Your task to perform on an android device: toggle location history Image 0: 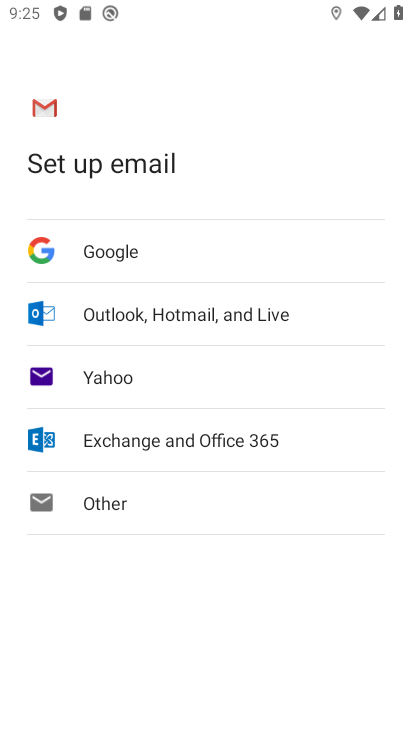
Step 0: press home button
Your task to perform on an android device: toggle location history Image 1: 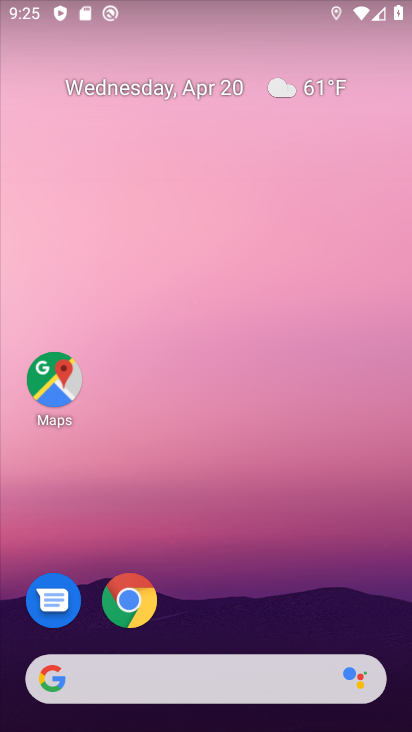
Step 1: click (45, 389)
Your task to perform on an android device: toggle location history Image 2: 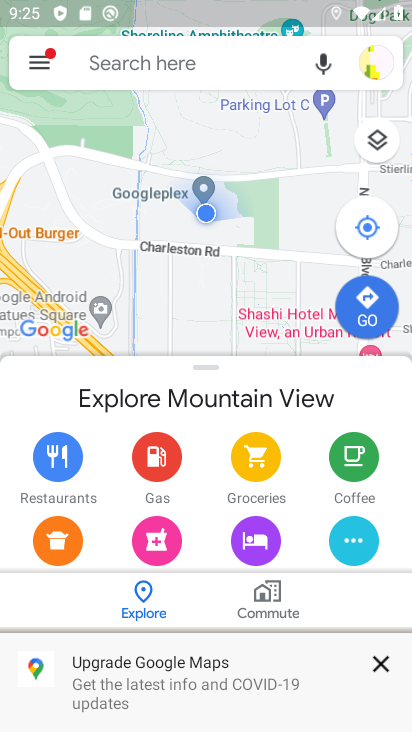
Step 2: click (44, 61)
Your task to perform on an android device: toggle location history Image 3: 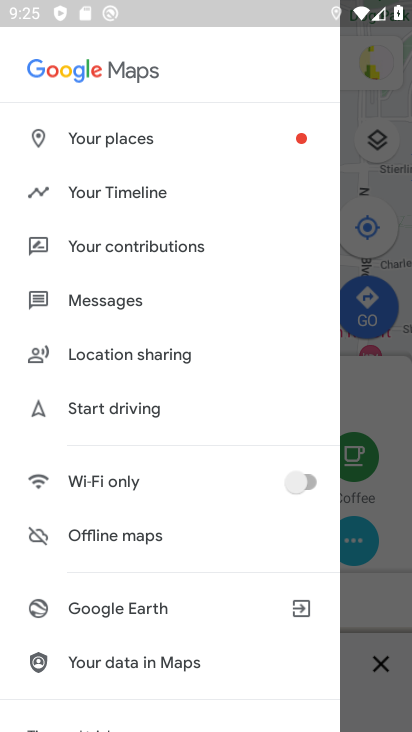
Step 3: click (120, 197)
Your task to perform on an android device: toggle location history Image 4: 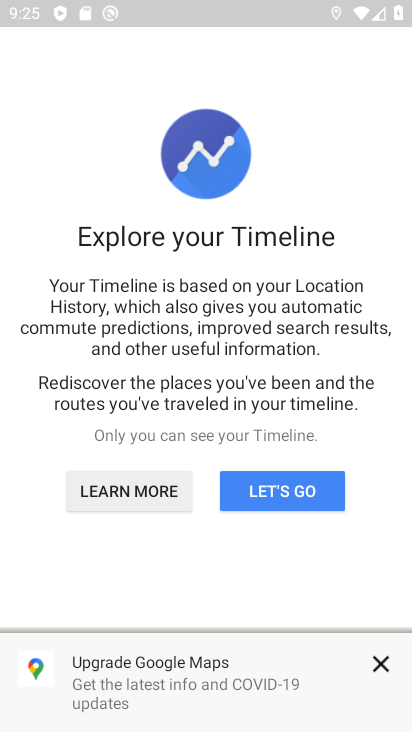
Step 4: click (291, 497)
Your task to perform on an android device: toggle location history Image 5: 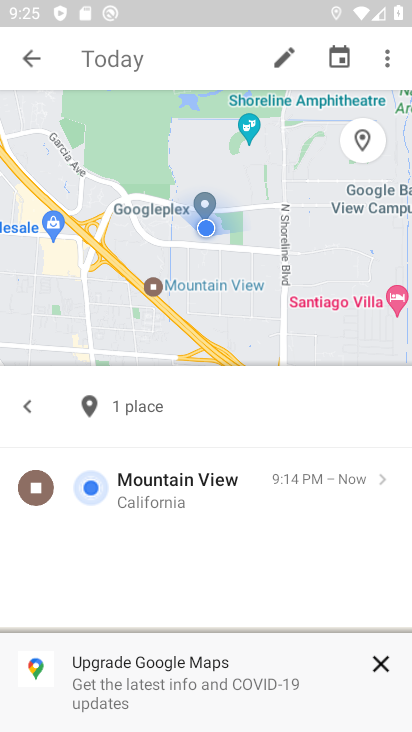
Step 5: click (390, 58)
Your task to perform on an android device: toggle location history Image 6: 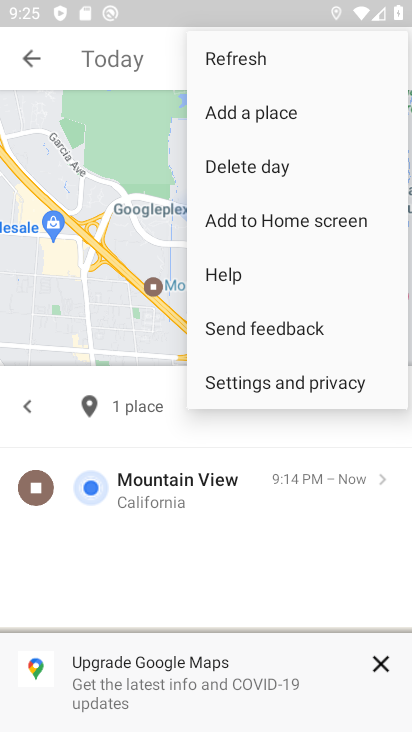
Step 6: click (273, 385)
Your task to perform on an android device: toggle location history Image 7: 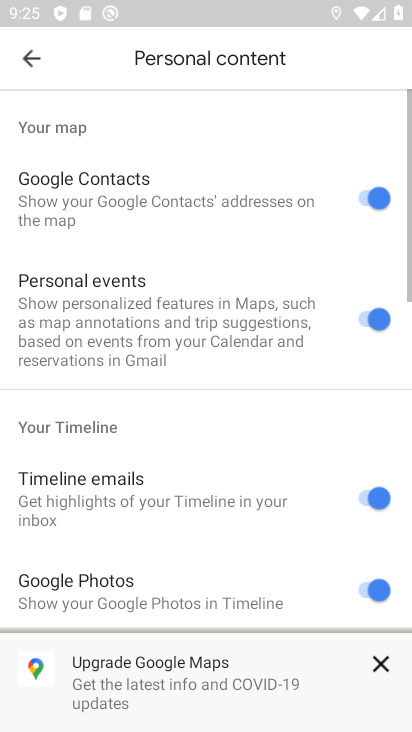
Step 7: drag from (208, 519) to (196, 153)
Your task to perform on an android device: toggle location history Image 8: 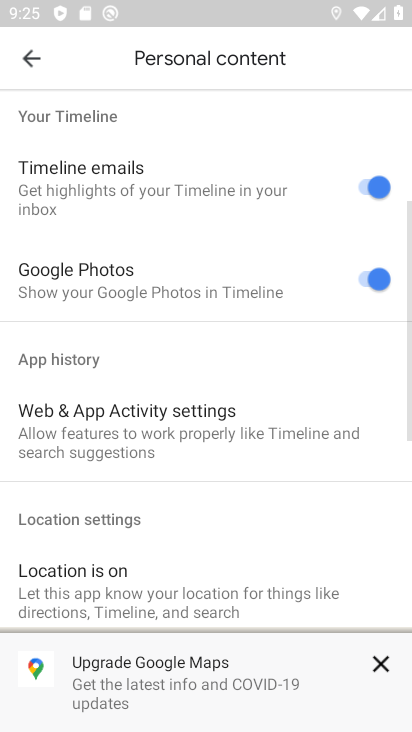
Step 8: drag from (198, 469) to (176, 45)
Your task to perform on an android device: toggle location history Image 9: 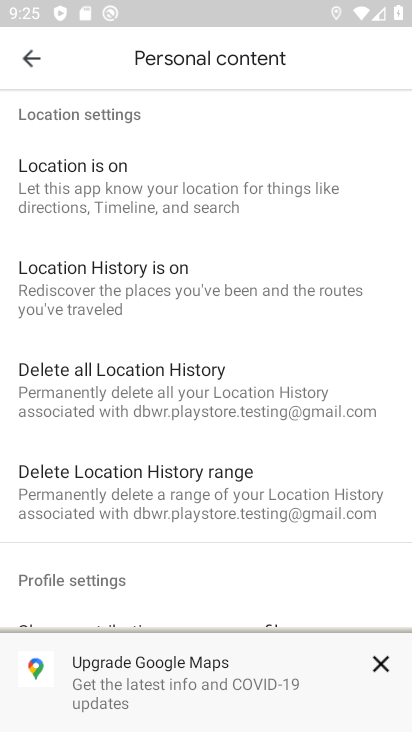
Step 9: drag from (189, 467) to (136, 62)
Your task to perform on an android device: toggle location history Image 10: 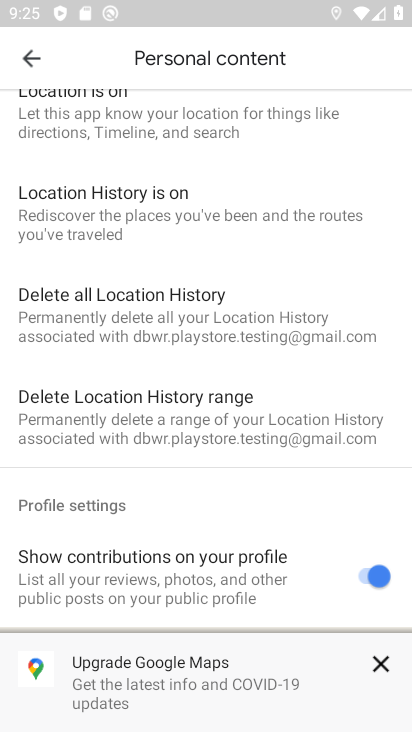
Step 10: click (94, 220)
Your task to perform on an android device: toggle location history Image 11: 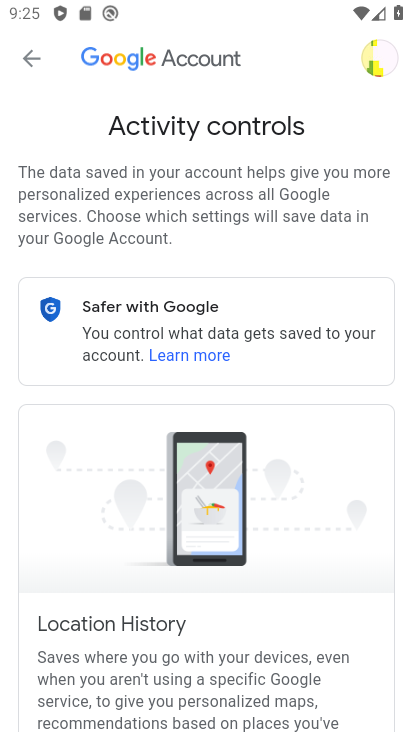
Step 11: drag from (287, 467) to (246, 129)
Your task to perform on an android device: toggle location history Image 12: 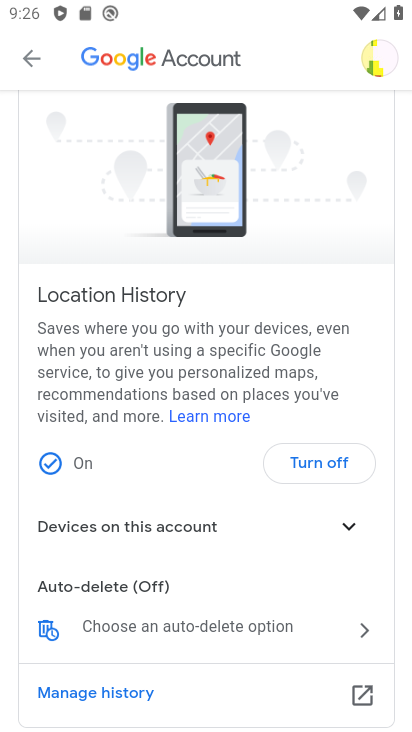
Step 12: click (314, 466)
Your task to perform on an android device: toggle location history Image 13: 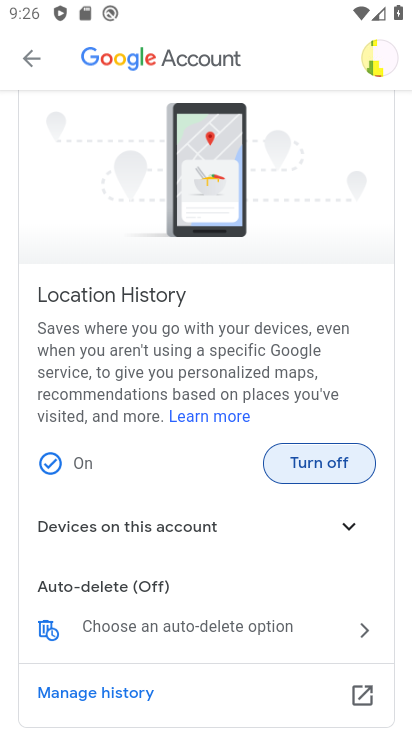
Step 13: click (326, 466)
Your task to perform on an android device: toggle location history Image 14: 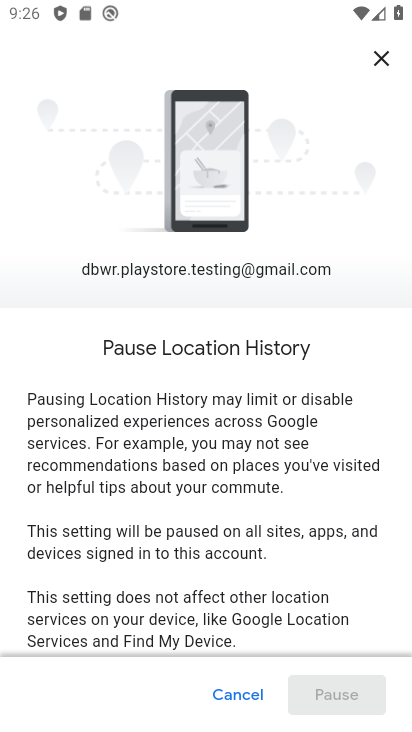
Step 14: drag from (212, 515) to (181, 109)
Your task to perform on an android device: toggle location history Image 15: 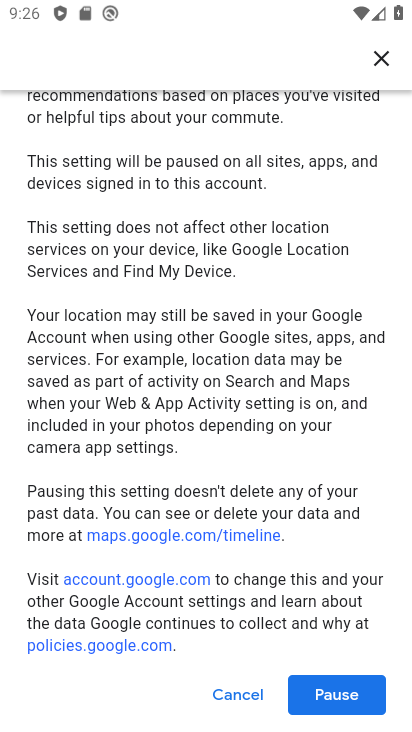
Step 15: drag from (182, 514) to (184, 170)
Your task to perform on an android device: toggle location history Image 16: 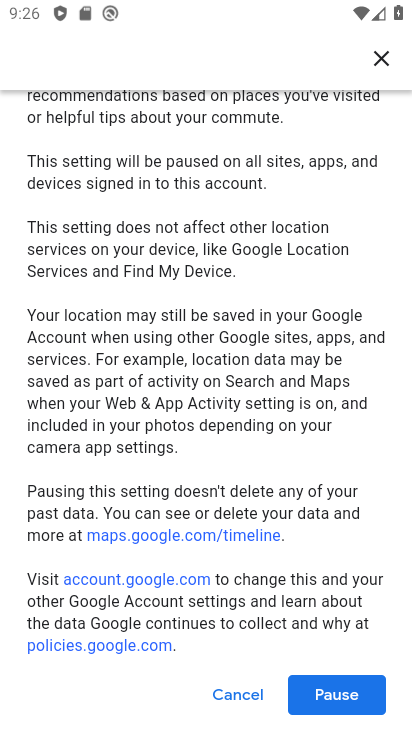
Step 16: click (351, 698)
Your task to perform on an android device: toggle location history Image 17: 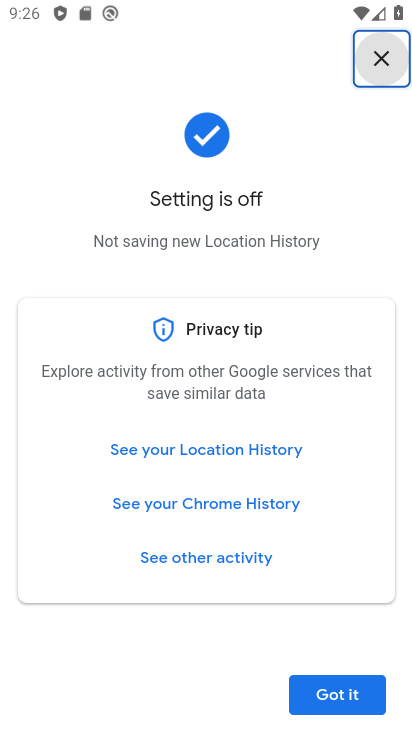
Step 17: click (329, 694)
Your task to perform on an android device: toggle location history Image 18: 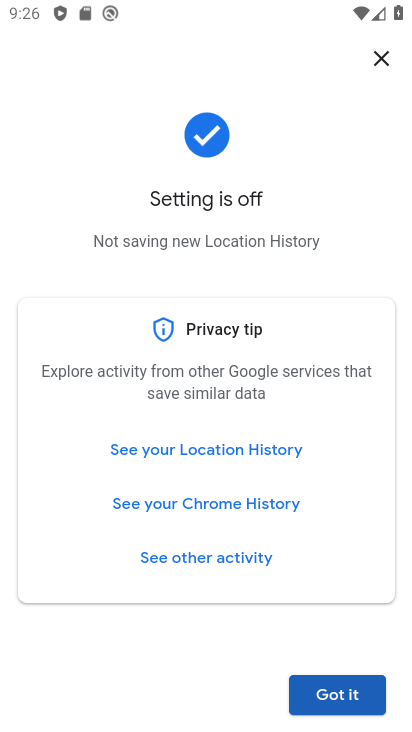
Step 18: click (337, 693)
Your task to perform on an android device: toggle location history Image 19: 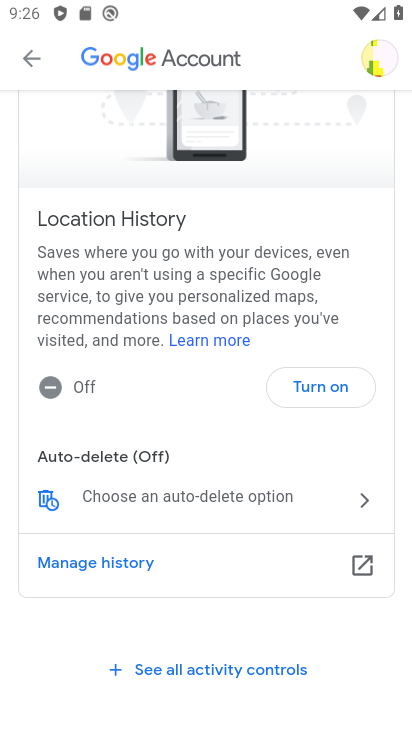
Step 19: task complete